Your task to perform on an android device: change keyboard looks Image 0: 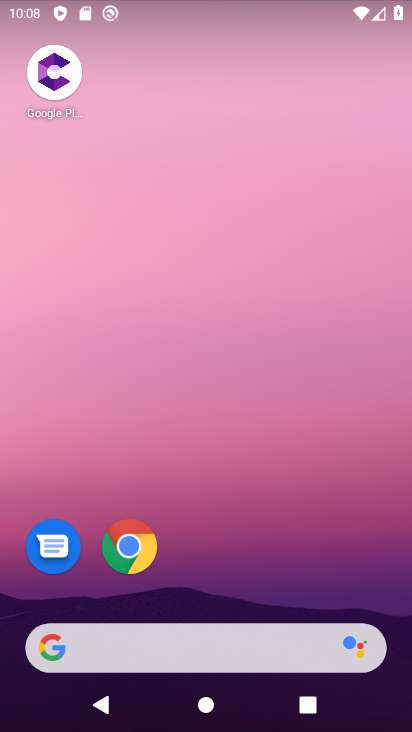
Step 0: drag from (157, 730) to (268, 78)
Your task to perform on an android device: change keyboard looks Image 1: 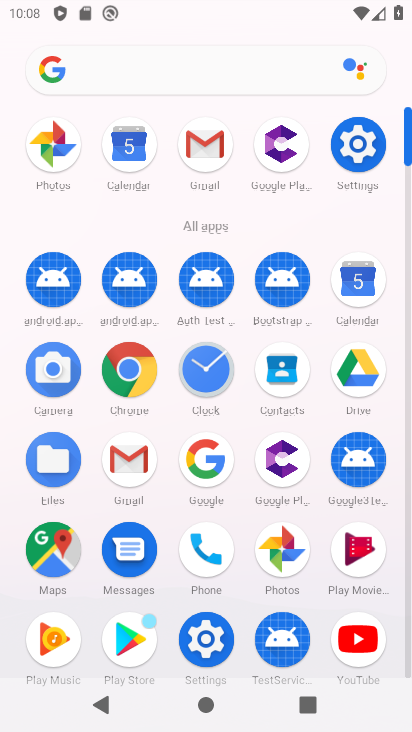
Step 1: click (355, 155)
Your task to perform on an android device: change keyboard looks Image 2: 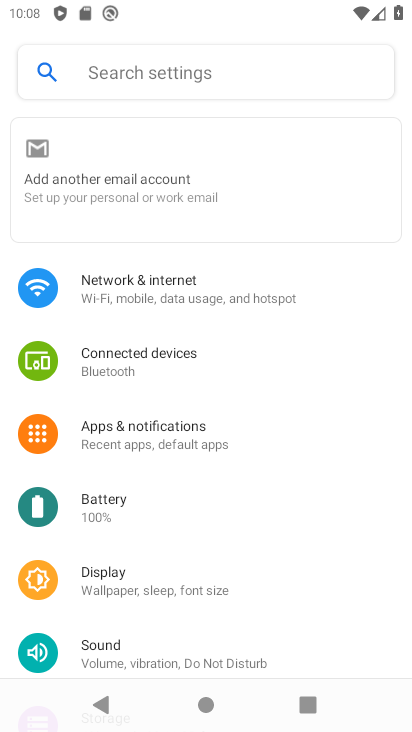
Step 2: drag from (352, 649) to (359, 135)
Your task to perform on an android device: change keyboard looks Image 3: 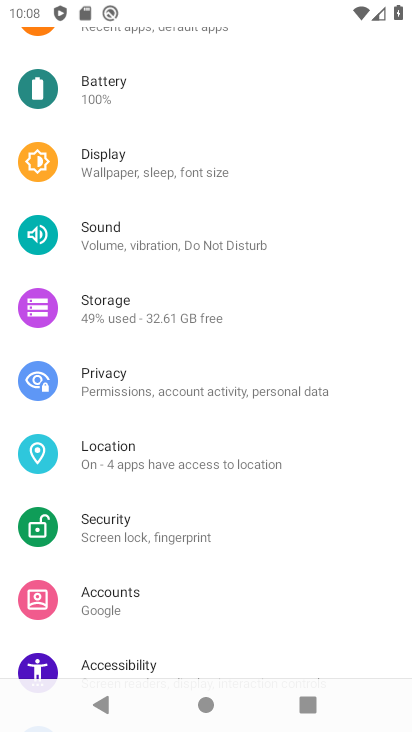
Step 3: drag from (319, 604) to (321, 158)
Your task to perform on an android device: change keyboard looks Image 4: 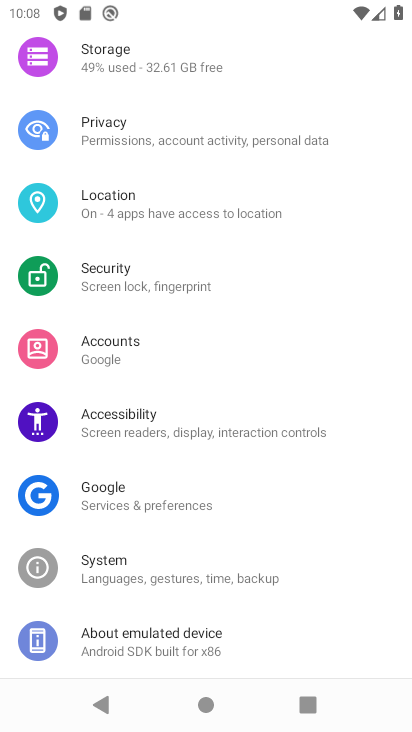
Step 4: click (145, 570)
Your task to perform on an android device: change keyboard looks Image 5: 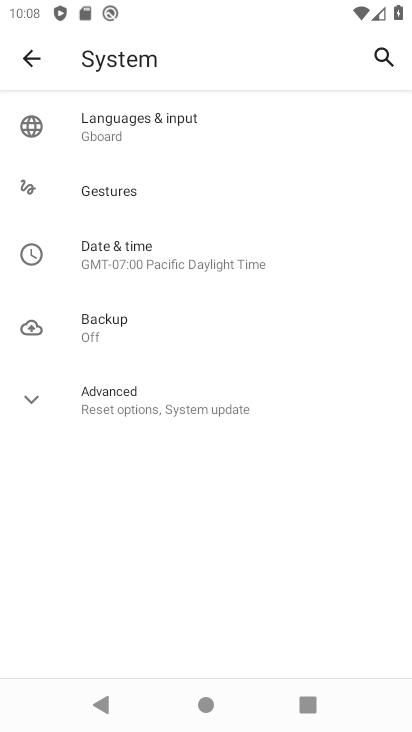
Step 5: click (151, 141)
Your task to perform on an android device: change keyboard looks Image 6: 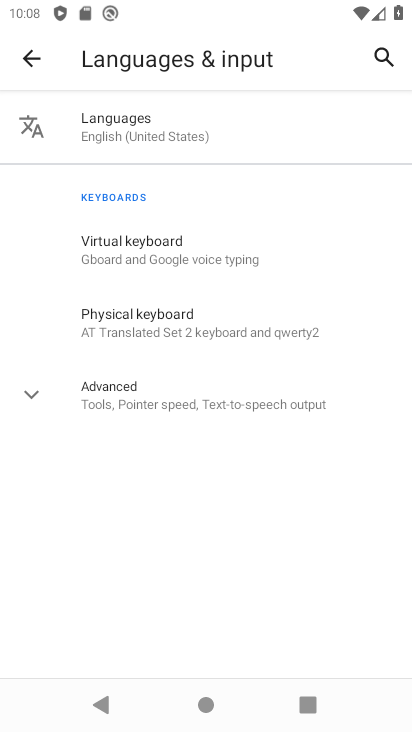
Step 6: click (173, 252)
Your task to perform on an android device: change keyboard looks Image 7: 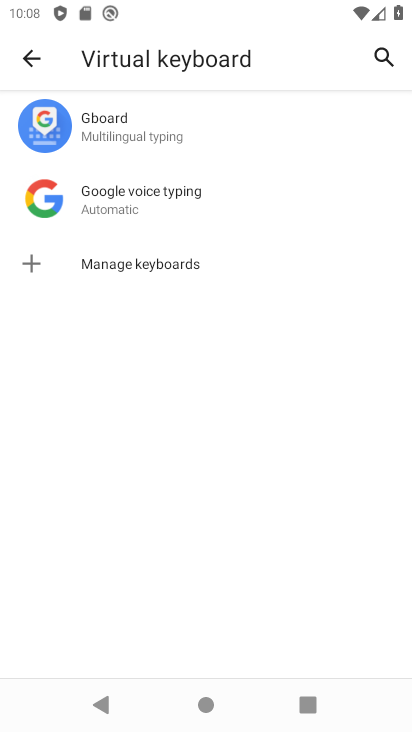
Step 7: click (176, 147)
Your task to perform on an android device: change keyboard looks Image 8: 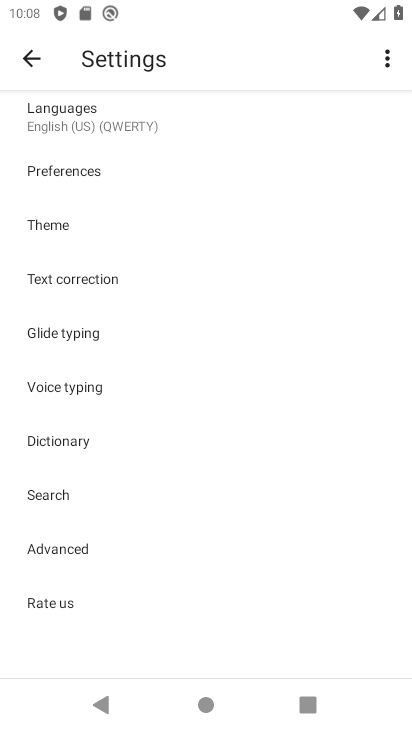
Step 8: click (42, 224)
Your task to perform on an android device: change keyboard looks Image 9: 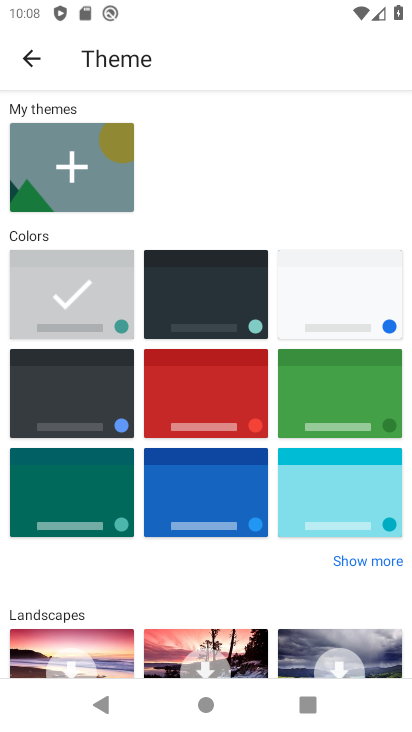
Step 9: click (202, 284)
Your task to perform on an android device: change keyboard looks Image 10: 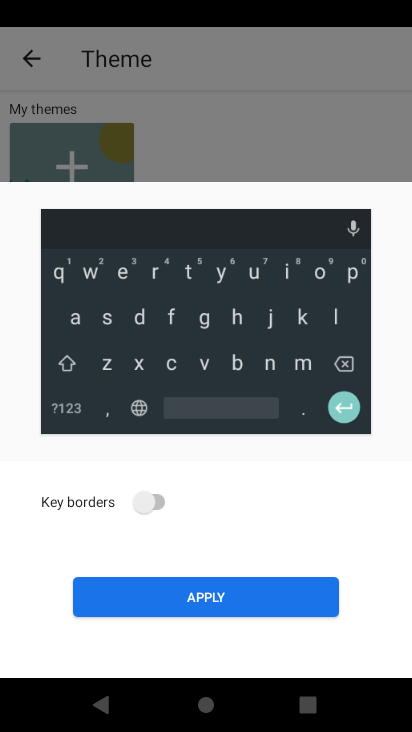
Step 10: click (241, 596)
Your task to perform on an android device: change keyboard looks Image 11: 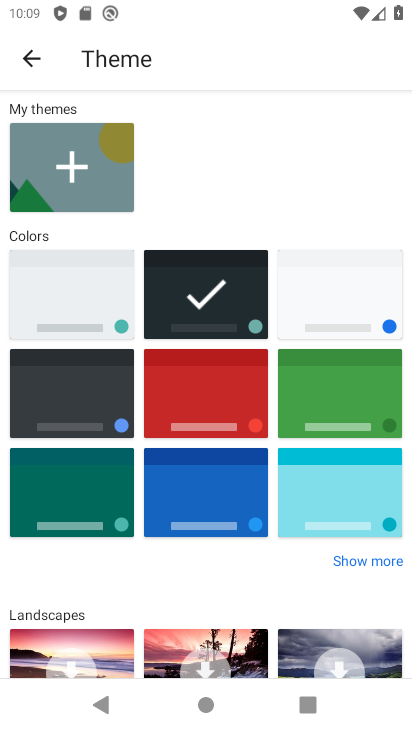
Step 11: task complete